Your task to perform on an android device: Open accessibility settings Image 0: 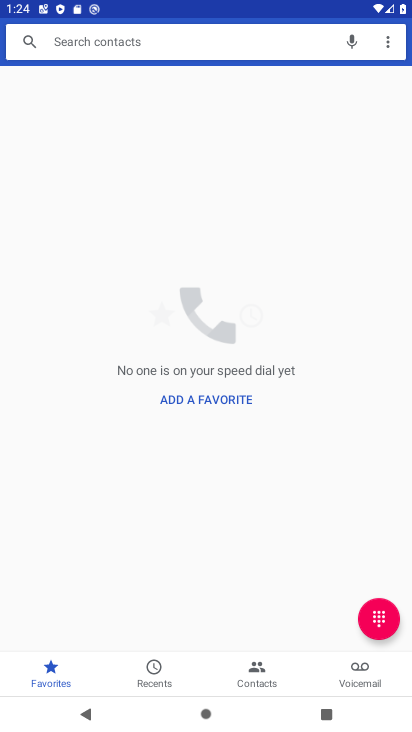
Step 0: press home button
Your task to perform on an android device: Open accessibility settings Image 1: 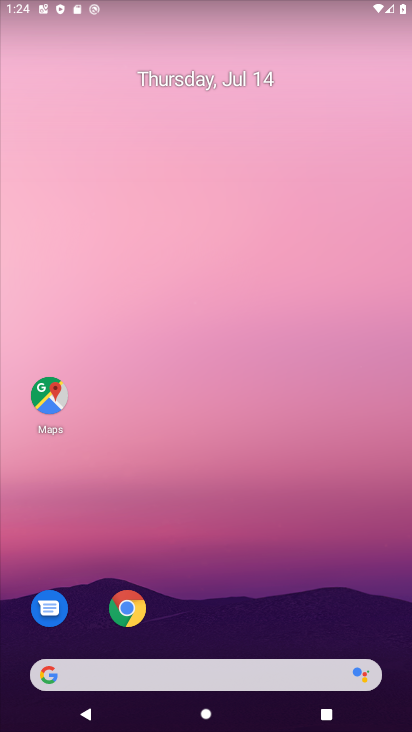
Step 1: drag from (344, 624) to (316, 63)
Your task to perform on an android device: Open accessibility settings Image 2: 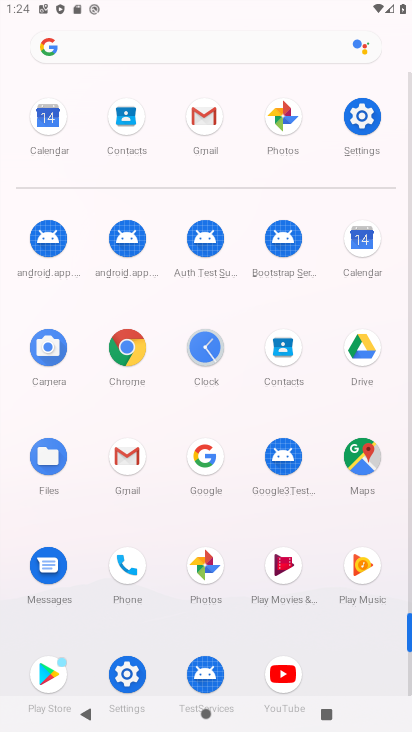
Step 2: click (124, 673)
Your task to perform on an android device: Open accessibility settings Image 3: 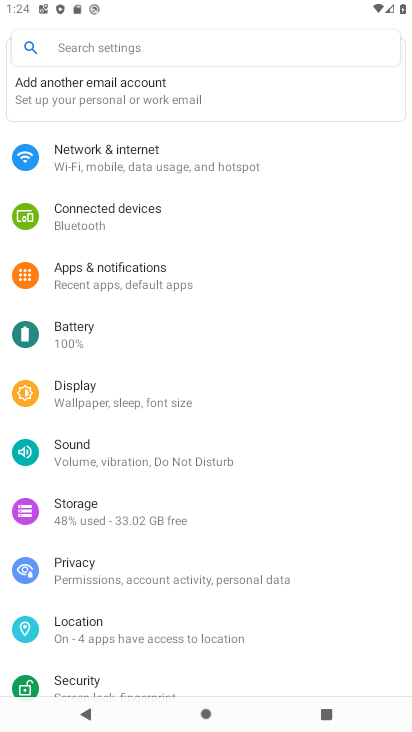
Step 3: drag from (294, 641) to (294, 91)
Your task to perform on an android device: Open accessibility settings Image 4: 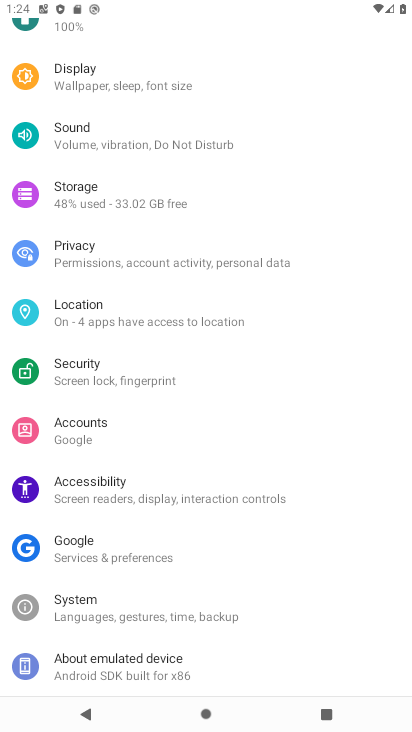
Step 4: click (79, 479)
Your task to perform on an android device: Open accessibility settings Image 5: 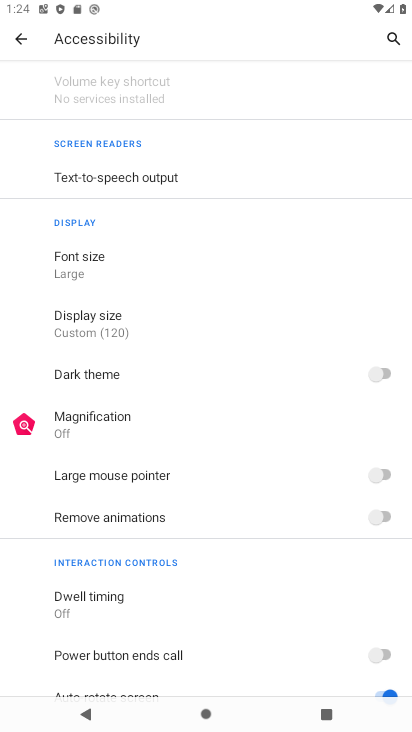
Step 5: task complete